Your task to perform on an android device: change timer sound Image 0: 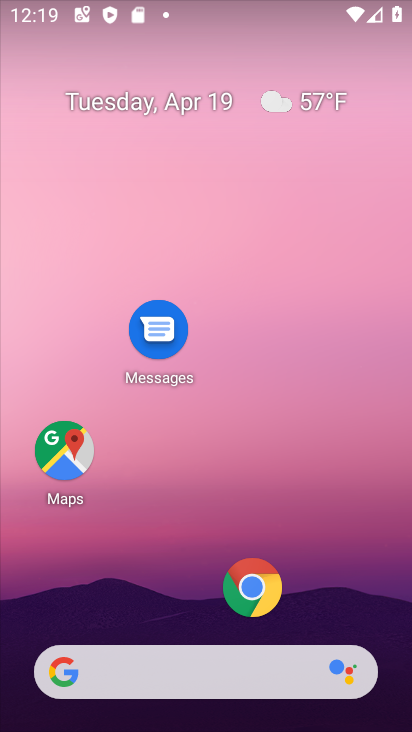
Step 0: drag from (161, 603) to (112, 122)
Your task to perform on an android device: change timer sound Image 1: 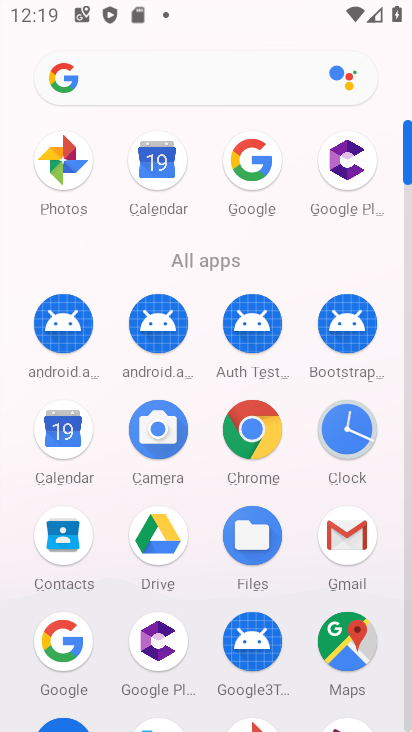
Step 1: click (343, 427)
Your task to perform on an android device: change timer sound Image 2: 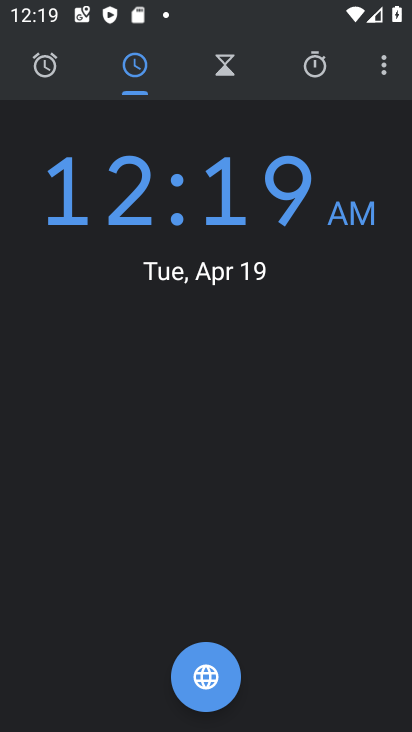
Step 2: click (376, 64)
Your task to perform on an android device: change timer sound Image 3: 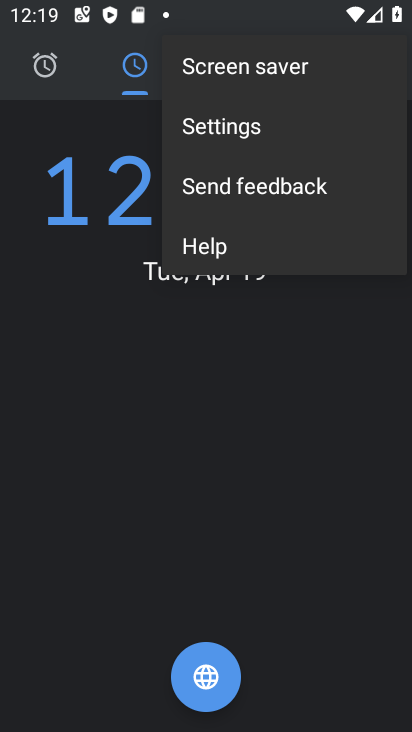
Step 3: click (247, 116)
Your task to perform on an android device: change timer sound Image 4: 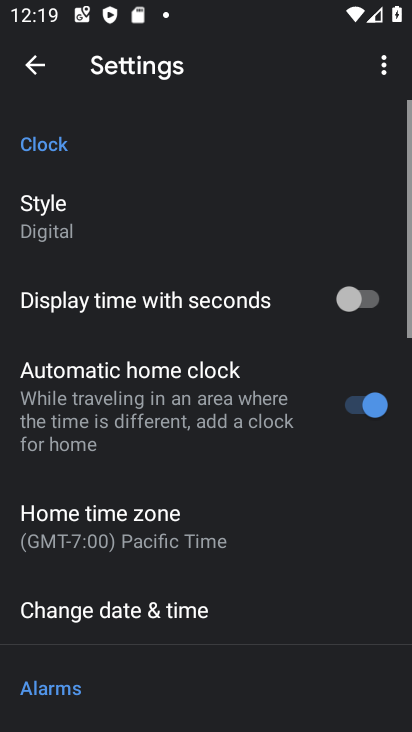
Step 4: drag from (140, 595) to (213, 152)
Your task to perform on an android device: change timer sound Image 5: 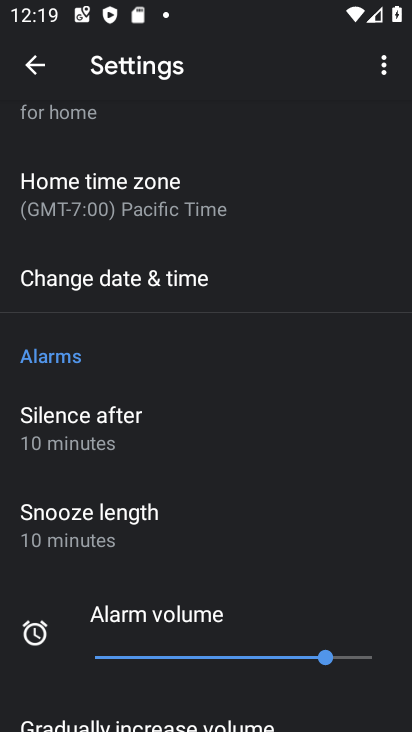
Step 5: drag from (217, 514) to (229, 123)
Your task to perform on an android device: change timer sound Image 6: 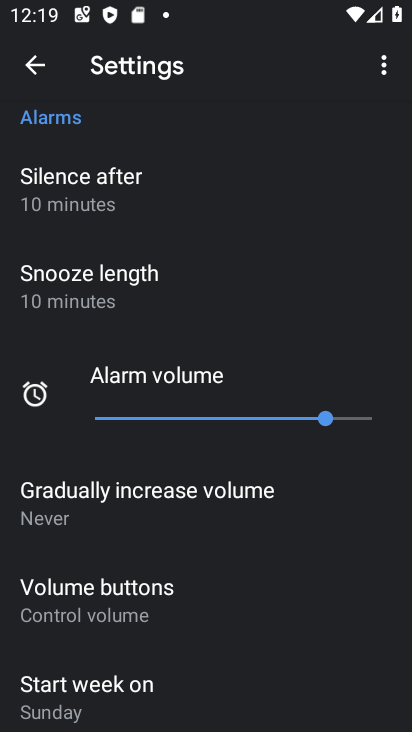
Step 6: drag from (166, 625) to (196, 182)
Your task to perform on an android device: change timer sound Image 7: 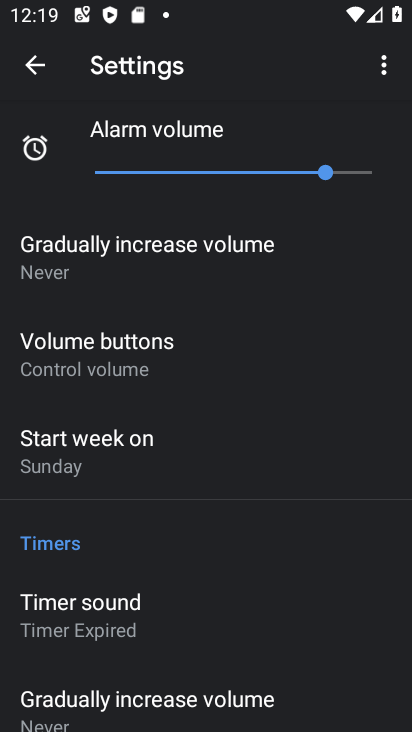
Step 7: click (91, 612)
Your task to perform on an android device: change timer sound Image 8: 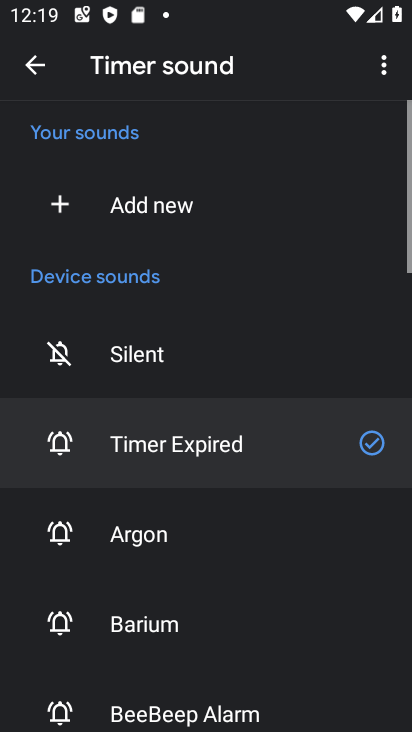
Step 8: click (70, 539)
Your task to perform on an android device: change timer sound Image 9: 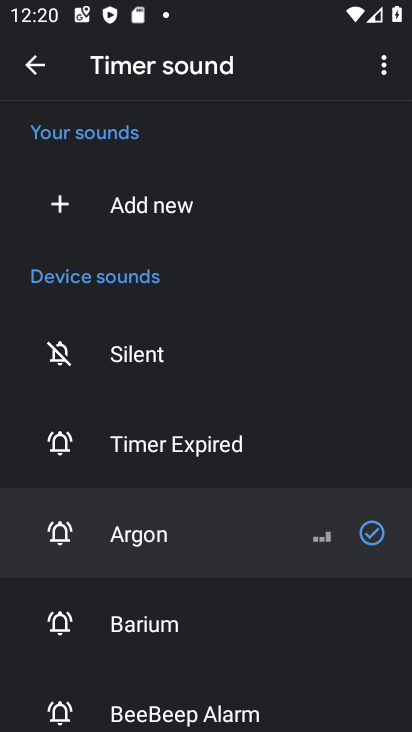
Step 9: task complete